Your task to perform on an android device: Open Youtube and go to the subscriptions tab Image 0: 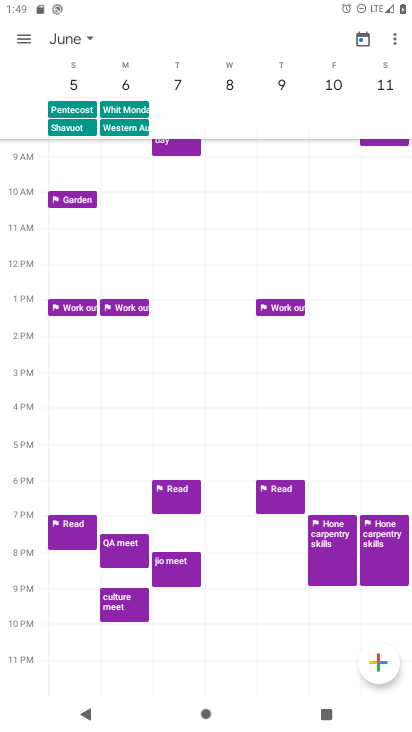
Step 0: press home button
Your task to perform on an android device: Open Youtube and go to the subscriptions tab Image 1: 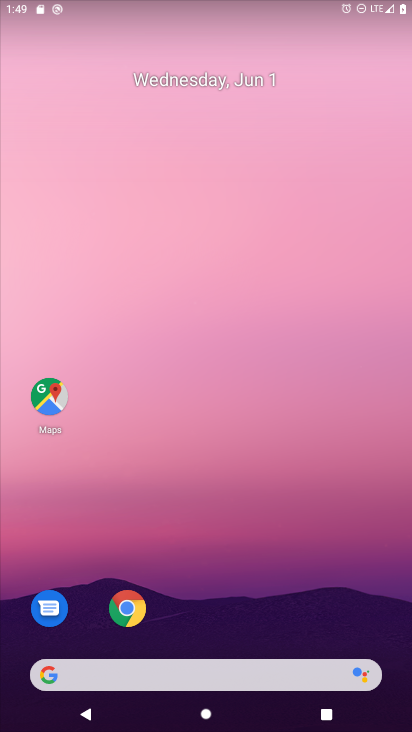
Step 1: drag from (199, 565) to (200, 207)
Your task to perform on an android device: Open Youtube and go to the subscriptions tab Image 2: 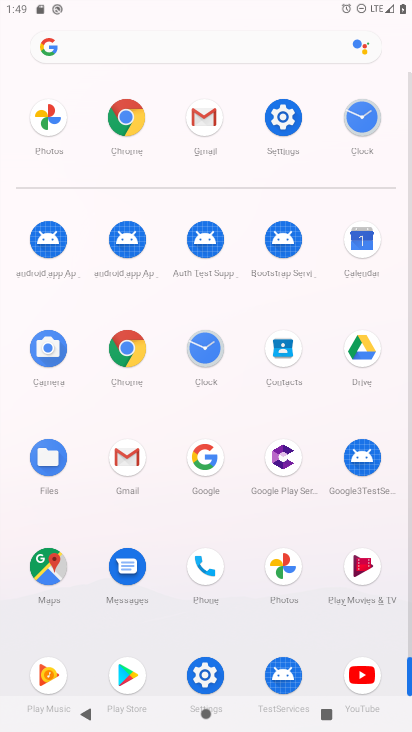
Step 2: click (362, 679)
Your task to perform on an android device: Open Youtube and go to the subscriptions tab Image 3: 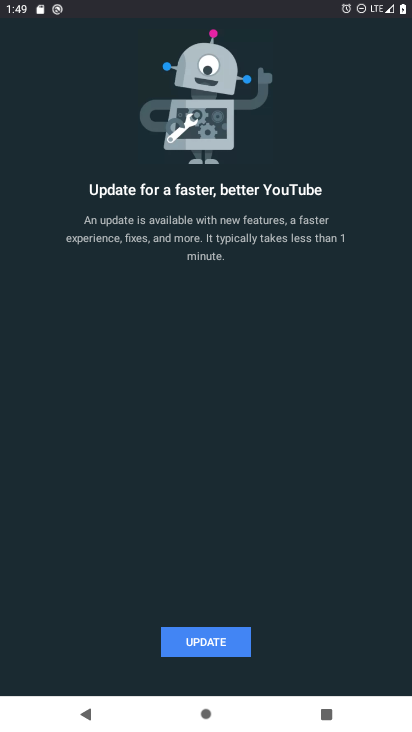
Step 3: click (192, 645)
Your task to perform on an android device: Open Youtube and go to the subscriptions tab Image 4: 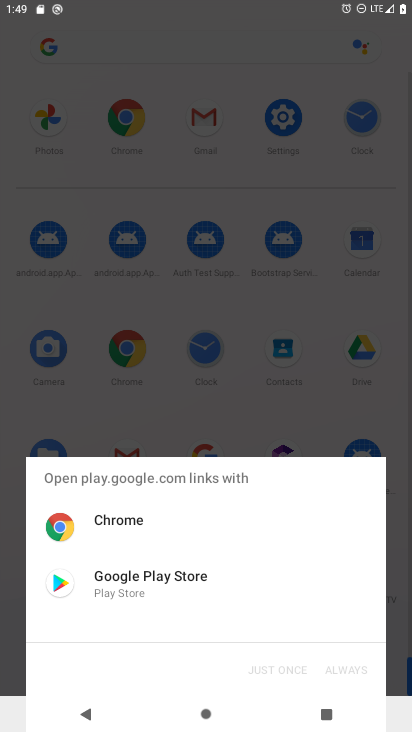
Step 4: click (105, 576)
Your task to perform on an android device: Open Youtube and go to the subscriptions tab Image 5: 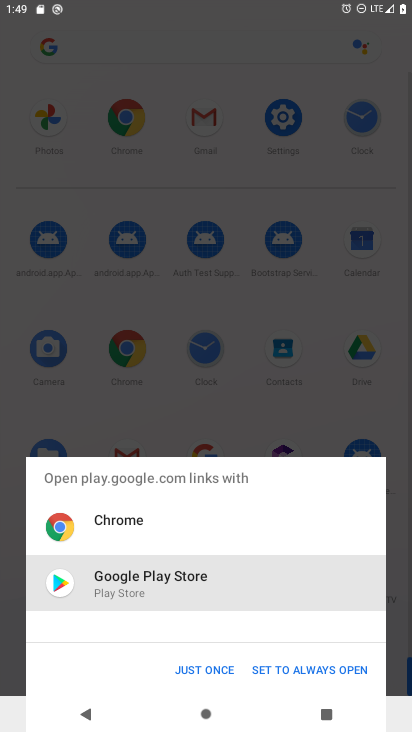
Step 5: click (281, 669)
Your task to perform on an android device: Open Youtube and go to the subscriptions tab Image 6: 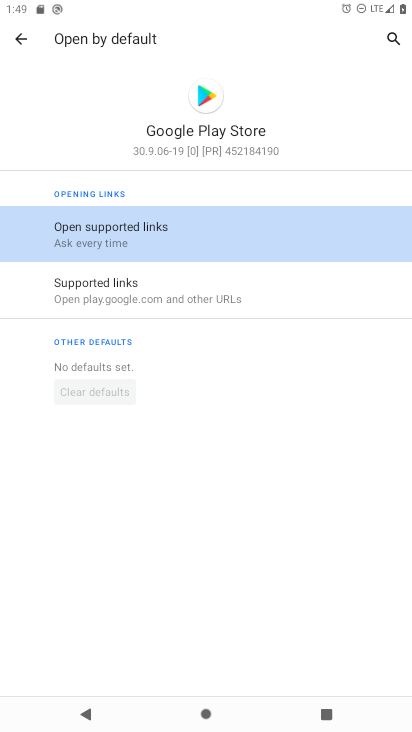
Step 6: click (133, 243)
Your task to perform on an android device: Open Youtube and go to the subscriptions tab Image 7: 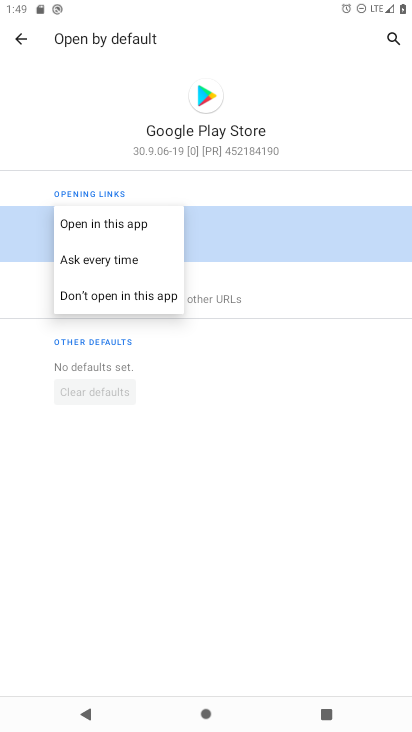
Step 7: click (112, 211)
Your task to perform on an android device: Open Youtube and go to the subscriptions tab Image 8: 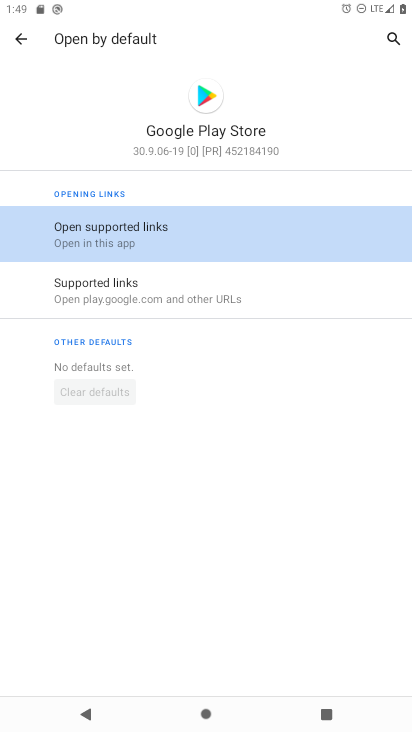
Step 8: click (23, 31)
Your task to perform on an android device: Open Youtube and go to the subscriptions tab Image 9: 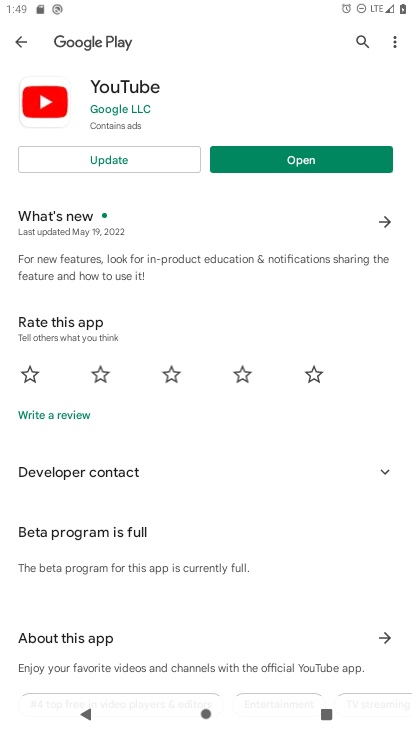
Step 9: click (141, 162)
Your task to perform on an android device: Open Youtube and go to the subscriptions tab Image 10: 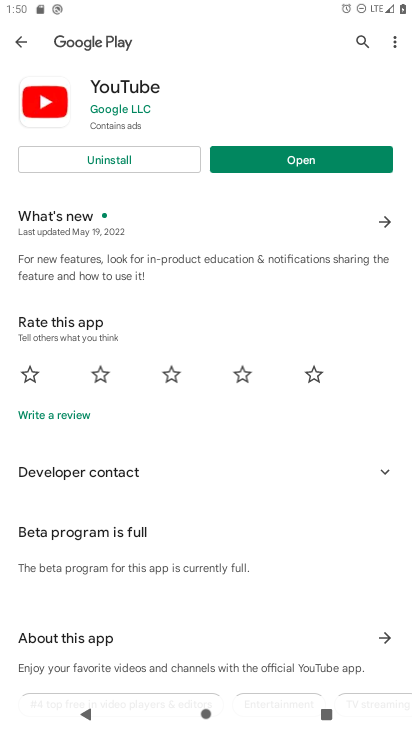
Step 10: click (305, 164)
Your task to perform on an android device: Open Youtube and go to the subscriptions tab Image 11: 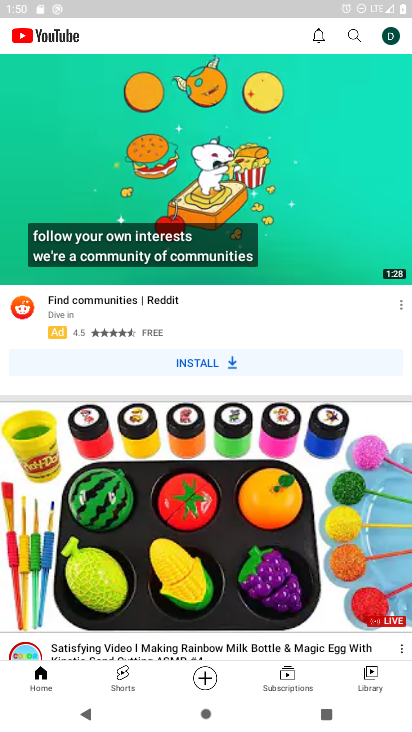
Step 11: drag from (301, 586) to (276, 451)
Your task to perform on an android device: Open Youtube and go to the subscriptions tab Image 12: 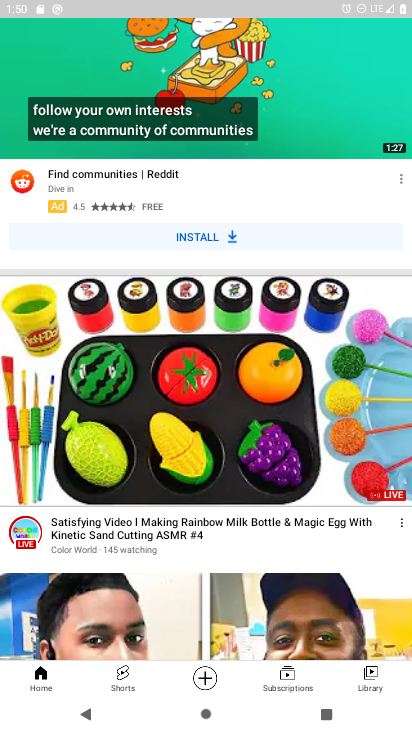
Step 12: click (283, 693)
Your task to perform on an android device: Open Youtube and go to the subscriptions tab Image 13: 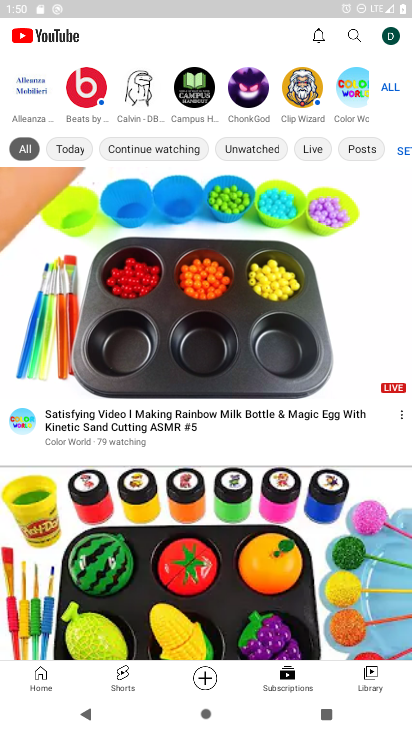
Step 13: task complete